Your task to perform on an android device: turn on bluetooth scan Image 0: 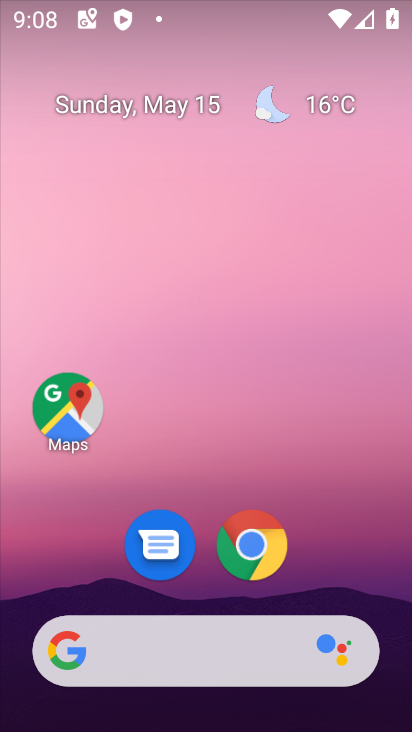
Step 0: drag from (337, 577) to (221, 232)
Your task to perform on an android device: turn on bluetooth scan Image 1: 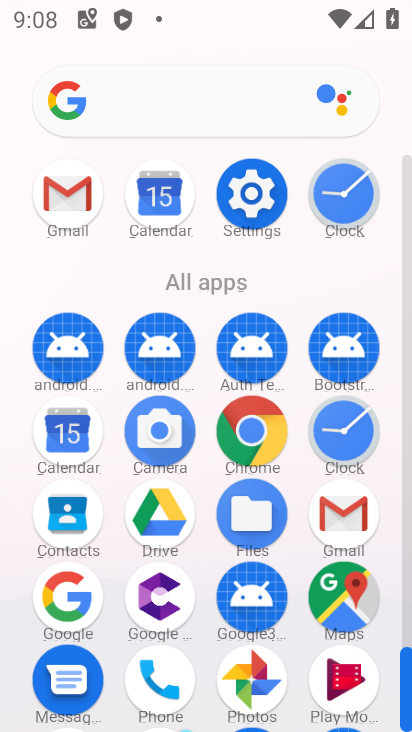
Step 1: click (251, 193)
Your task to perform on an android device: turn on bluetooth scan Image 2: 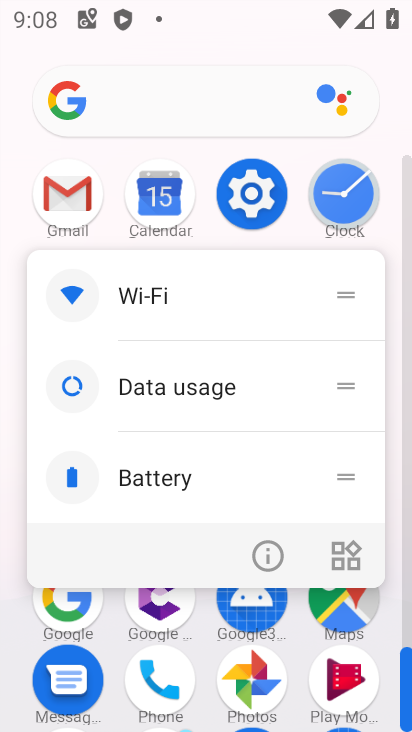
Step 2: click (251, 193)
Your task to perform on an android device: turn on bluetooth scan Image 3: 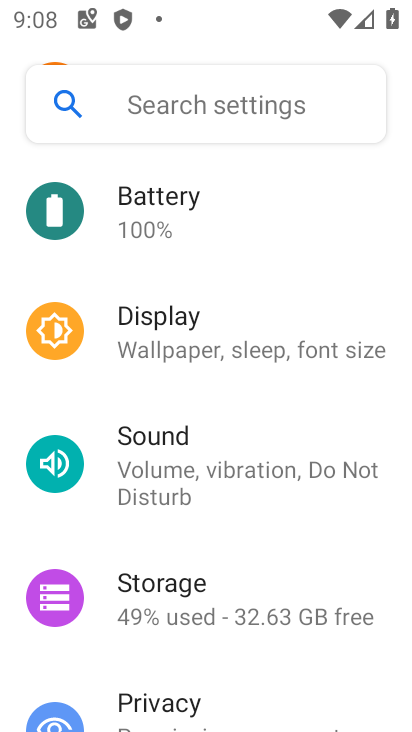
Step 3: drag from (202, 531) to (238, 429)
Your task to perform on an android device: turn on bluetooth scan Image 4: 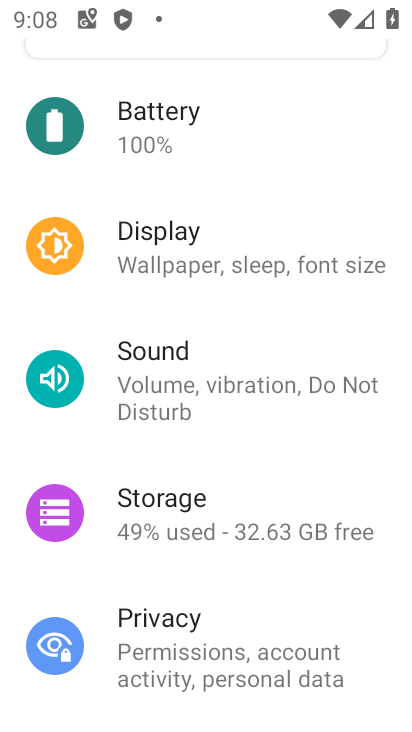
Step 4: drag from (196, 561) to (232, 484)
Your task to perform on an android device: turn on bluetooth scan Image 5: 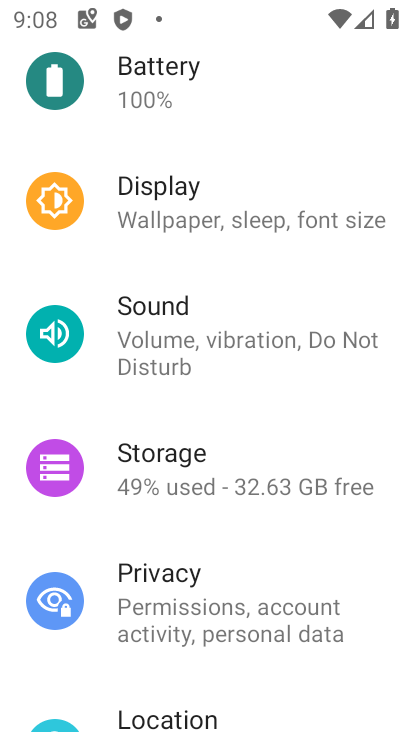
Step 5: drag from (163, 660) to (204, 497)
Your task to perform on an android device: turn on bluetooth scan Image 6: 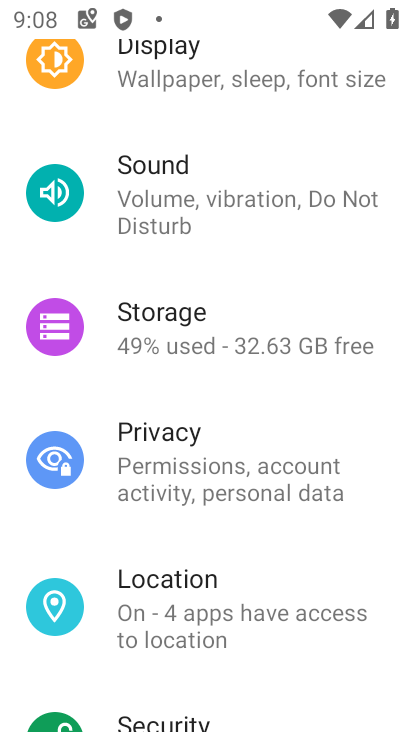
Step 6: drag from (172, 548) to (273, 409)
Your task to perform on an android device: turn on bluetooth scan Image 7: 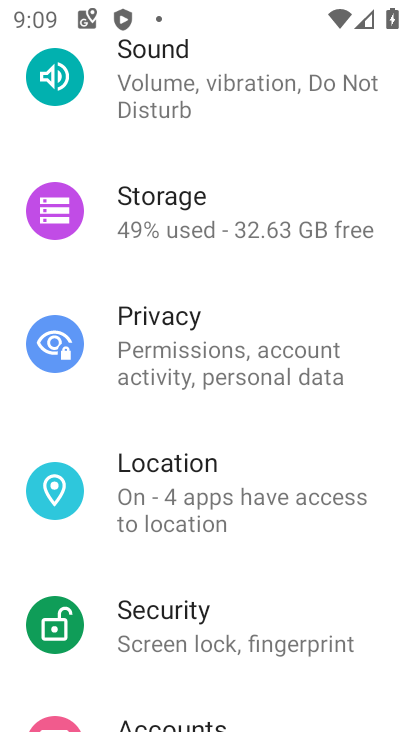
Step 7: click (187, 464)
Your task to perform on an android device: turn on bluetooth scan Image 8: 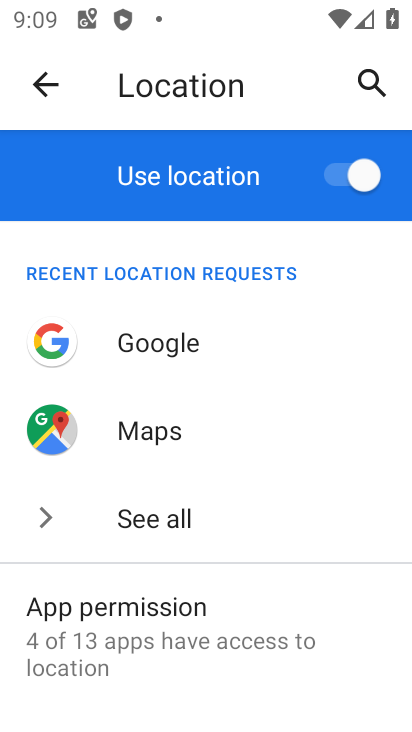
Step 8: drag from (179, 599) to (274, 372)
Your task to perform on an android device: turn on bluetooth scan Image 9: 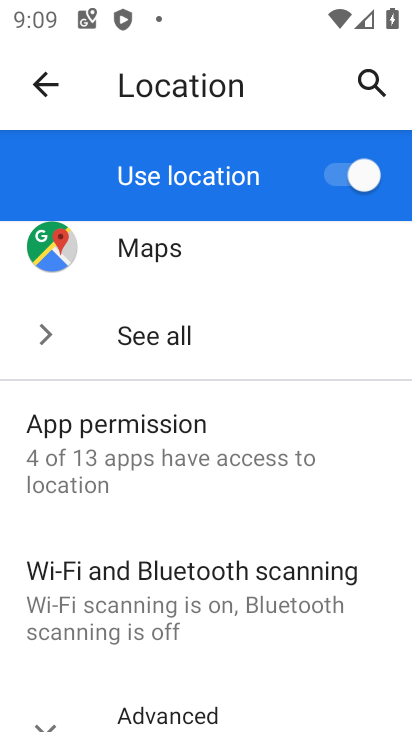
Step 9: click (177, 570)
Your task to perform on an android device: turn on bluetooth scan Image 10: 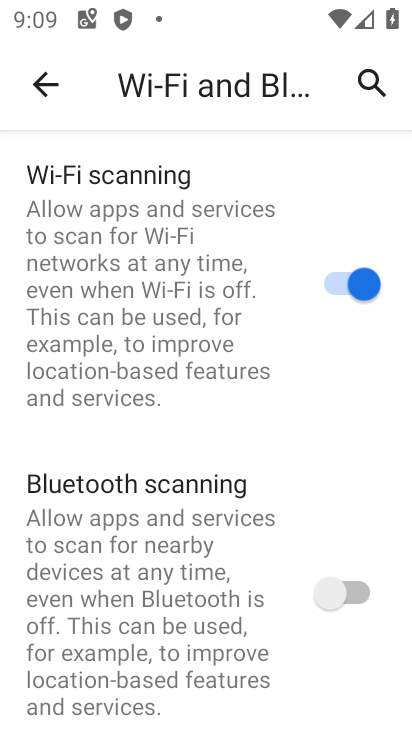
Step 10: click (343, 595)
Your task to perform on an android device: turn on bluetooth scan Image 11: 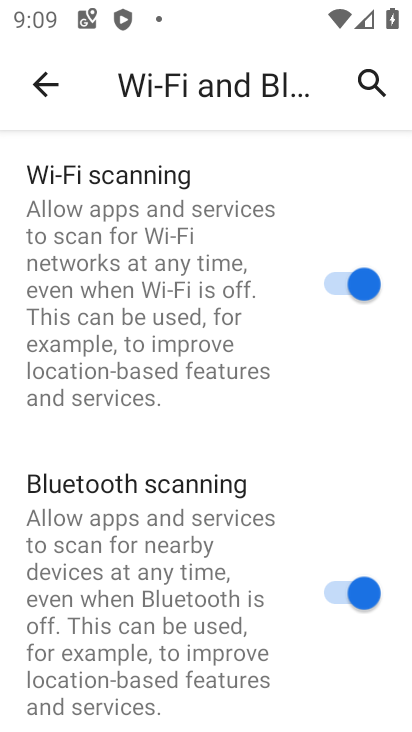
Step 11: task complete